Your task to perform on an android device: visit the assistant section in the google photos Image 0: 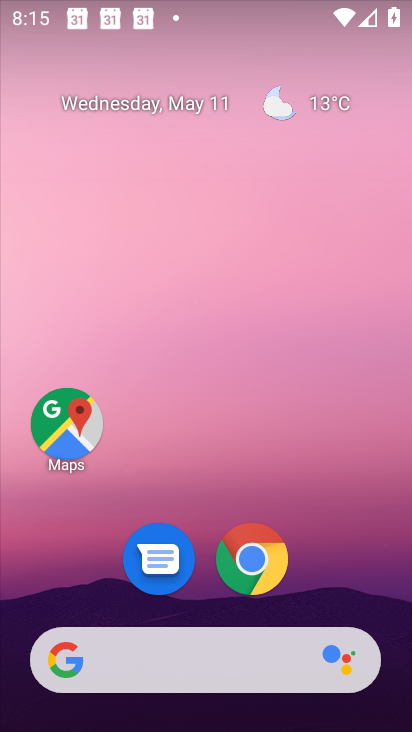
Step 0: drag from (355, 552) to (245, 126)
Your task to perform on an android device: visit the assistant section in the google photos Image 1: 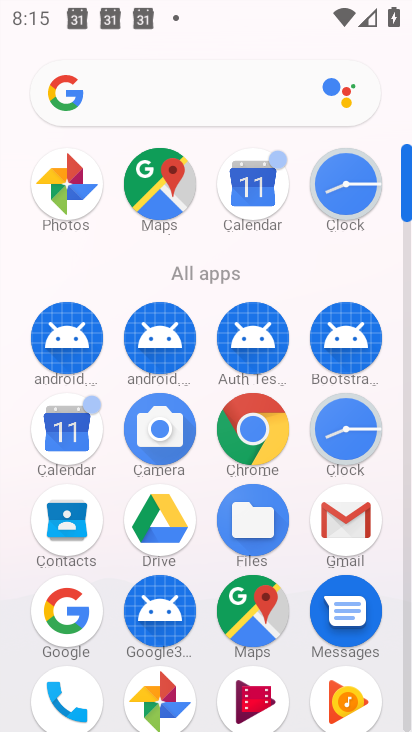
Step 1: click (173, 679)
Your task to perform on an android device: visit the assistant section in the google photos Image 2: 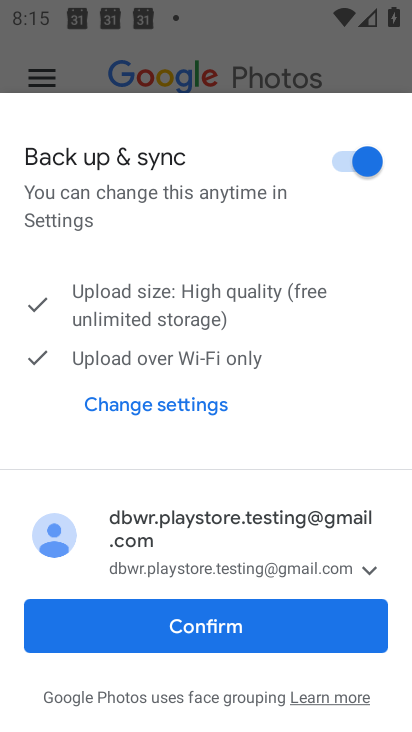
Step 2: click (205, 615)
Your task to perform on an android device: visit the assistant section in the google photos Image 3: 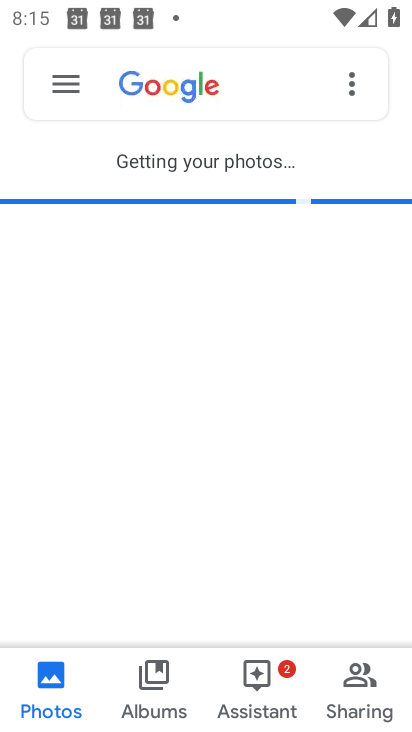
Step 3: click (258, 681)
Your task to perform on an android device: visit the assistant section in the google photos Image 4: 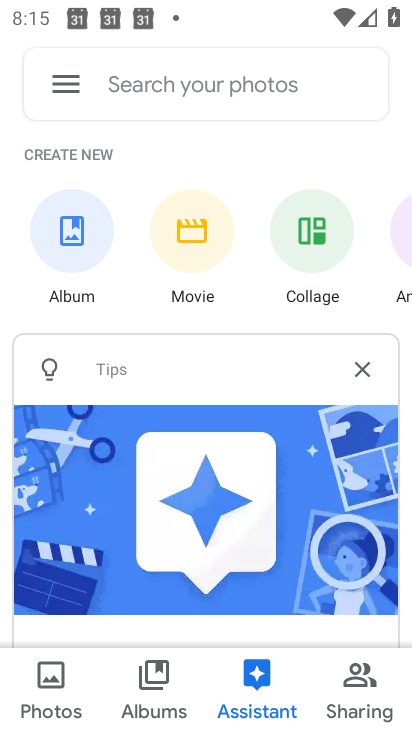
Step 4: task complete